Your task to perform on an android device: Go to Reddit.com Image 0: 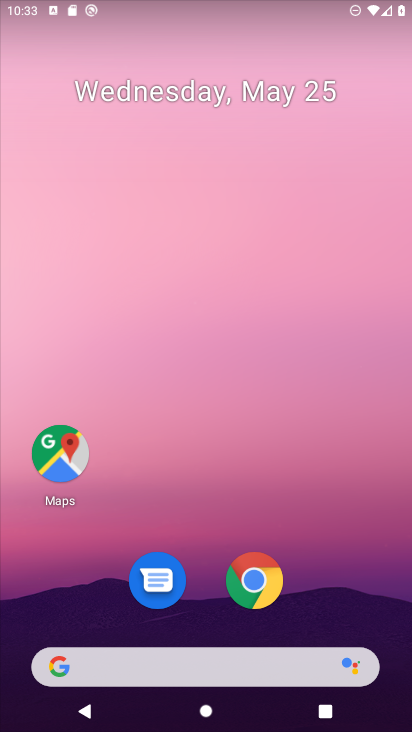
Step 0: press home button
Your task to perform on an android device: Go to Reddit.com Image 1: 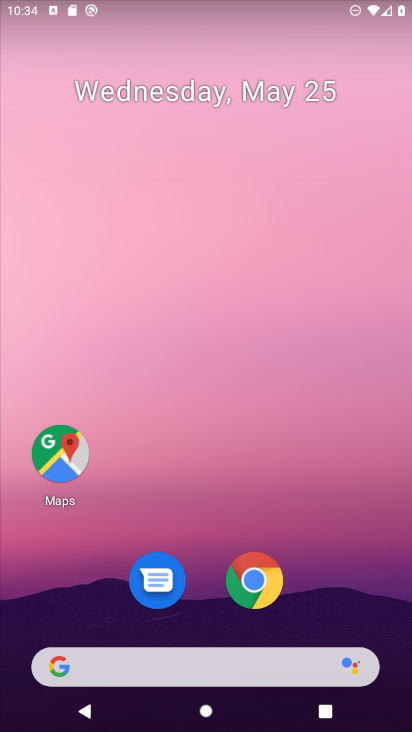
Step 1: click (179, 673)
Your task to perform on an android device: Go to Reddit.com Image 2: 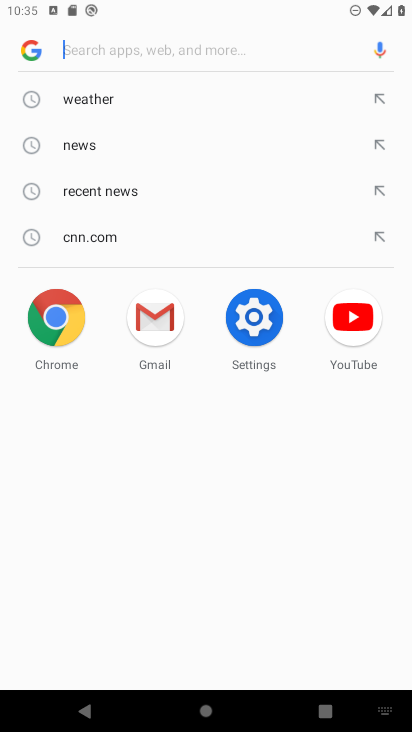
Step 2: type "Reddit.com"
Your task to perform on an android device: Go to Reddit.com Image 3: 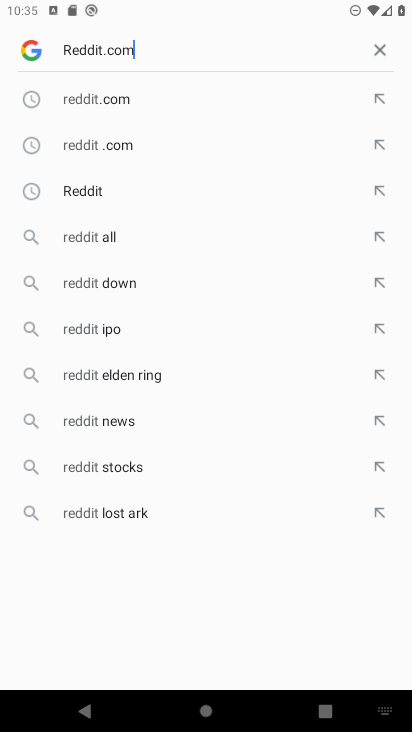
Step 3: type ""
Your task to perform on an android device: Go to Reddit.com Image 4: 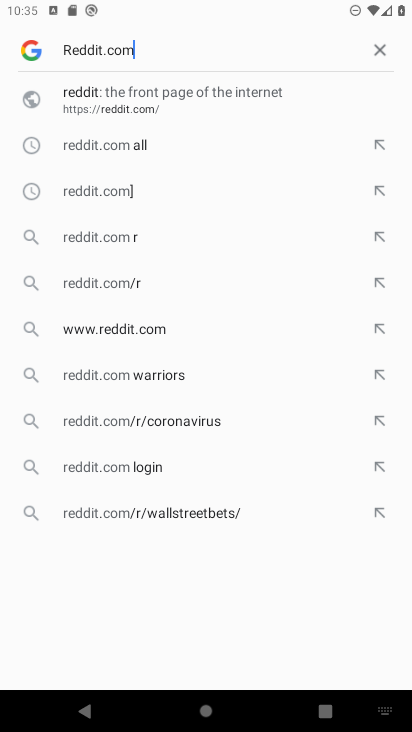
Step 4: click (113, 102)
Your task to perform on an android device: Go to Reddit.com Image 5: 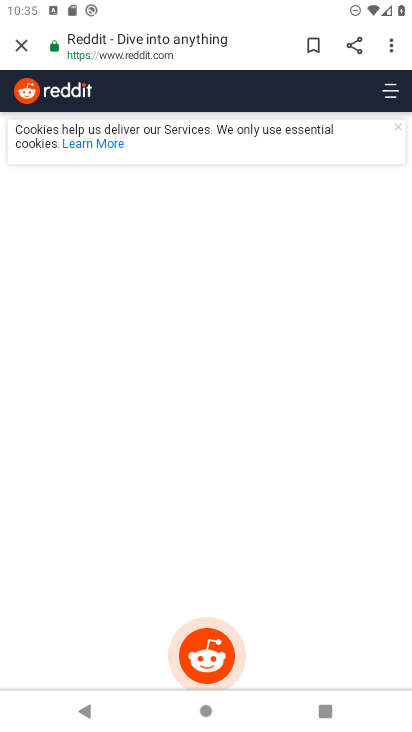
Step 5: task complete